Your task to perform on an android device: What's the weather going to be tomorrow? Image 0: 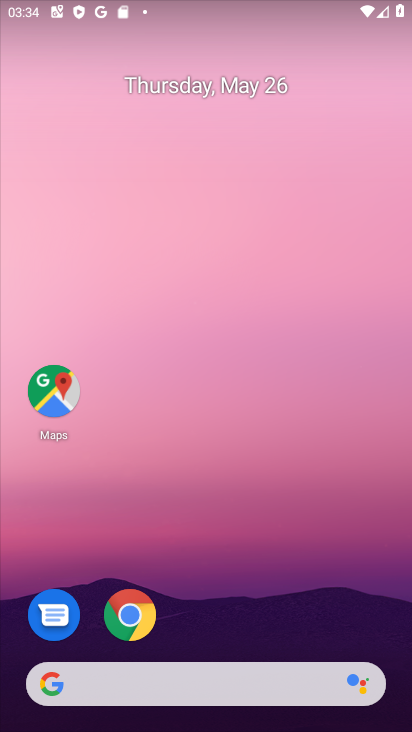
Step 0: drag from (254, 623) to (256, 79)
Your task to perform on an android device: What's the weather going to be tomorrow? Image 1: 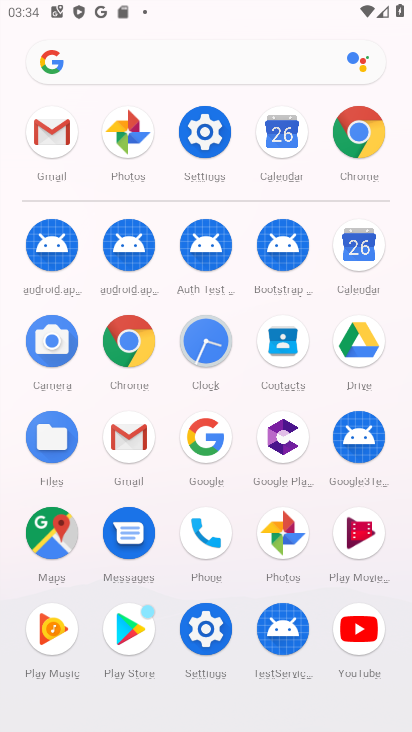
Step 1: click (211, 447)
Your task to perform on an android device: What's the weather going to be tomorrow? Image 2: 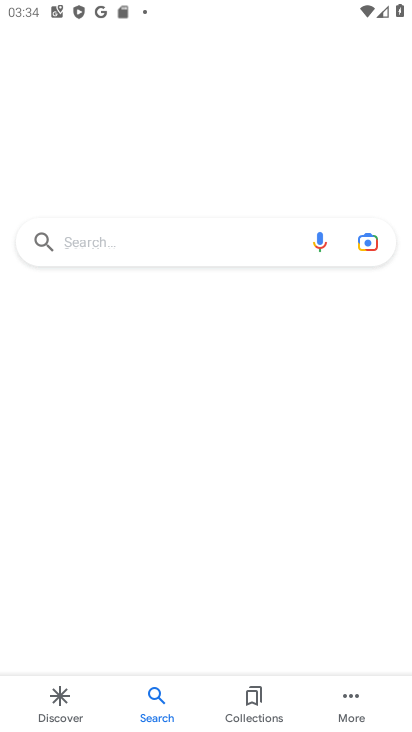
Step 2: click (159, 230)
Your task to perform on an android device: What's the weather going to be tomorrow? Image 3: 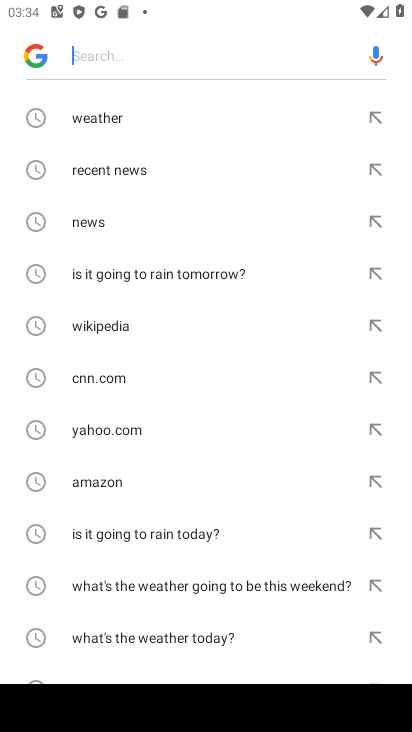
Step 3: click (97, 127)
Your task to perform on an android device: What's the weather going to be tomorrow? Image 4: 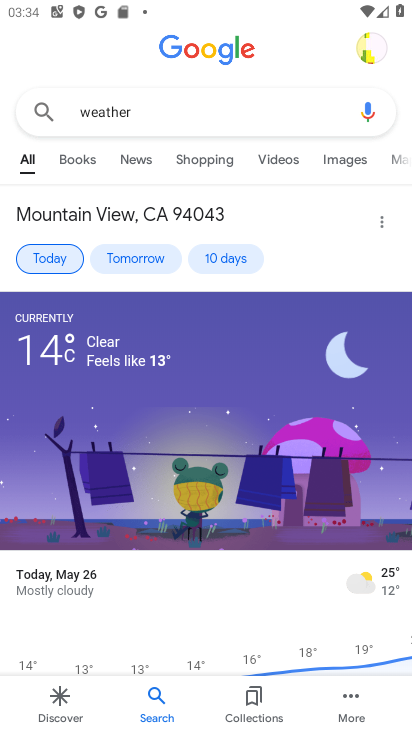
Step 4: drag from (259, 598) to (274, 506)
Your task to perform on an android device: What's the weather going to be tomorrow? Image 5: 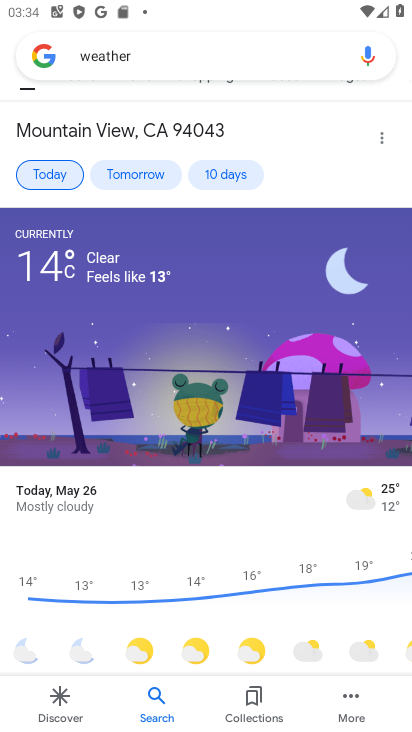
Step 5: click (129, 173)
Your task to perform on an android device: What's the weather going to be tomorrow? Image 6: 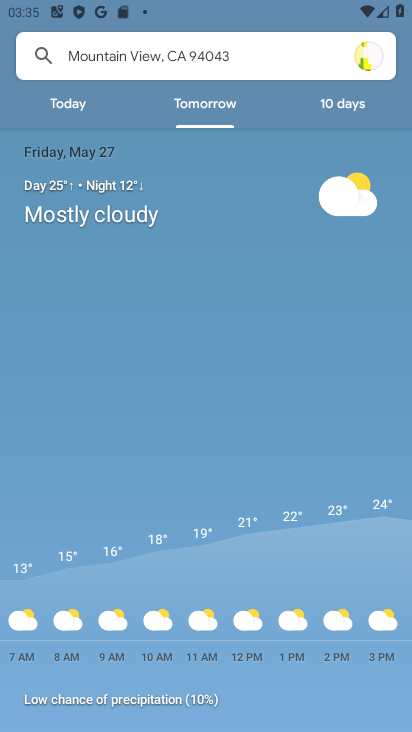
Step 6: task complete